Your task to perform on an android device: Empty the shopping cart on amazon. Add "asus rog" to the cart on amazon Image 0: 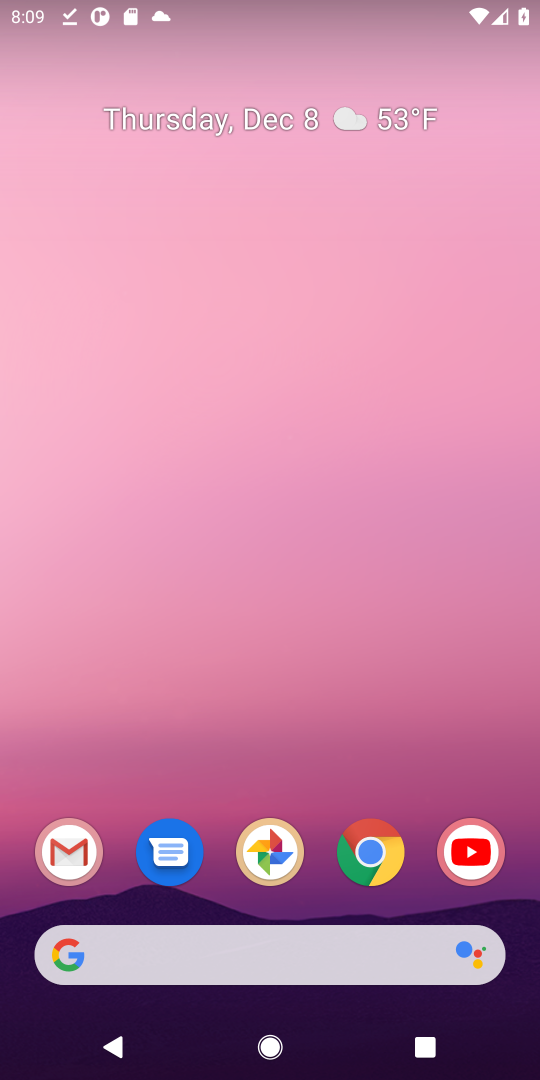
Step 0: click (197, 955)
Your task to perform on an android device: Empty the shopping cart on amazon. Add "asus rog" to the cart on amazon Image 1: 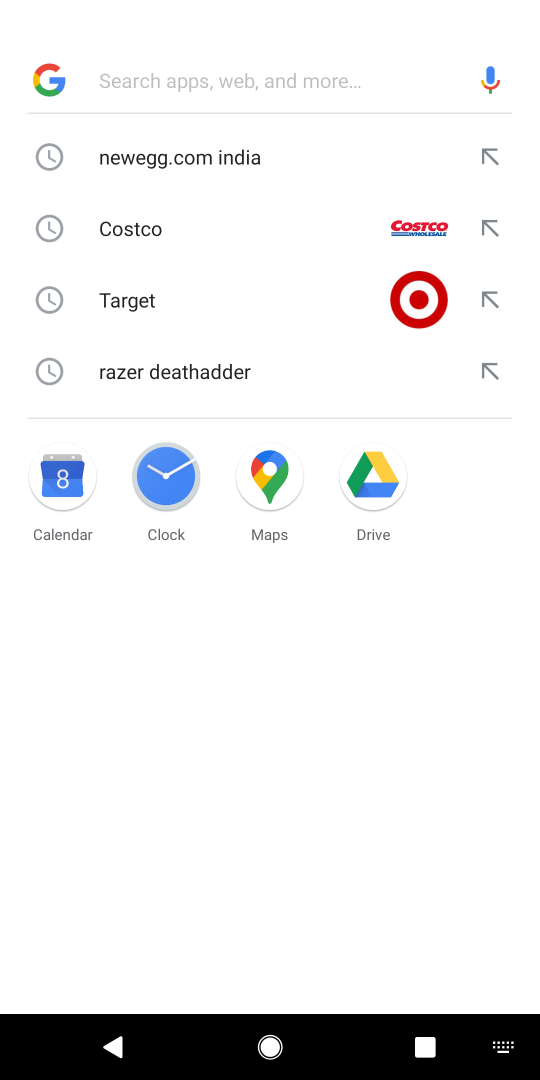
Step 1: type "aus rog"
Your task to perform on an android device: Empty the shopping cart on amazon. Add "asus rog" to the cart on amazon Image 2: 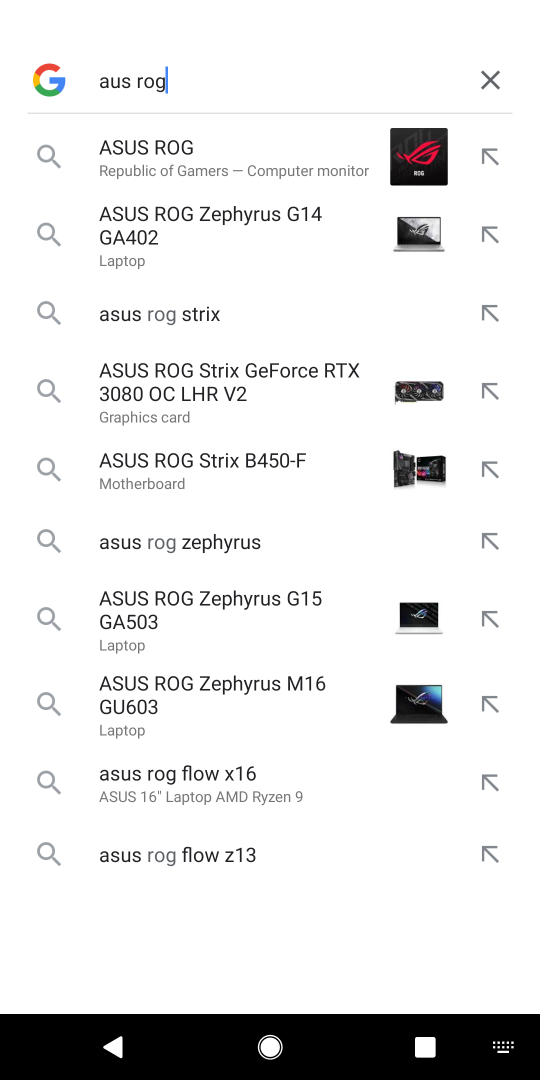
Step 2: click (206, 198)
Your task to perform on an android device: Empty the shopping cart on amazon. Add "asus rog" to the cart on amazon Image 3: 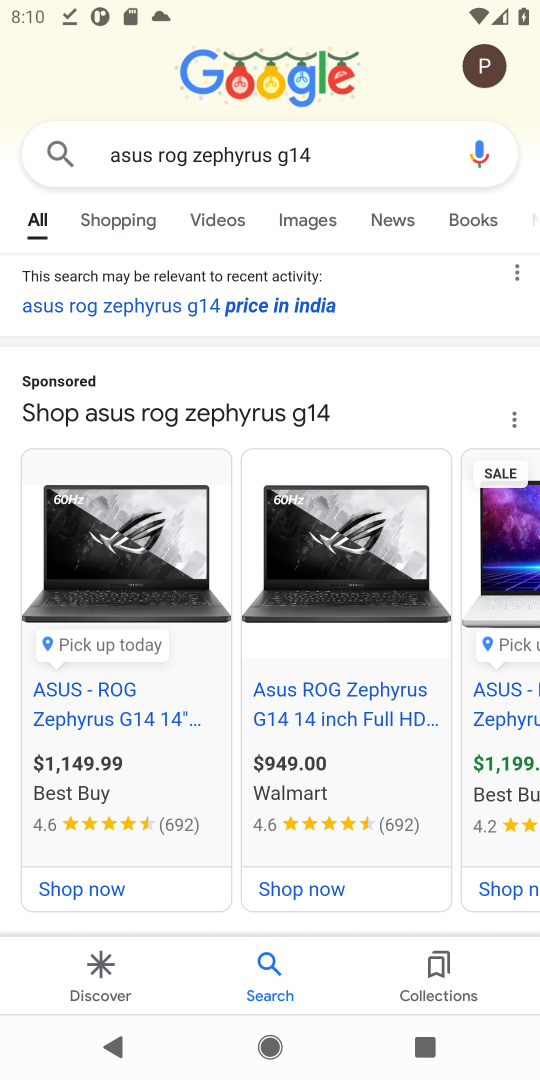
Step 3: click (131, 713)
Your task to perform on an android device: Empty the shopping cart on amazon. Add "asus rog" to the cart on amazon Image 4: 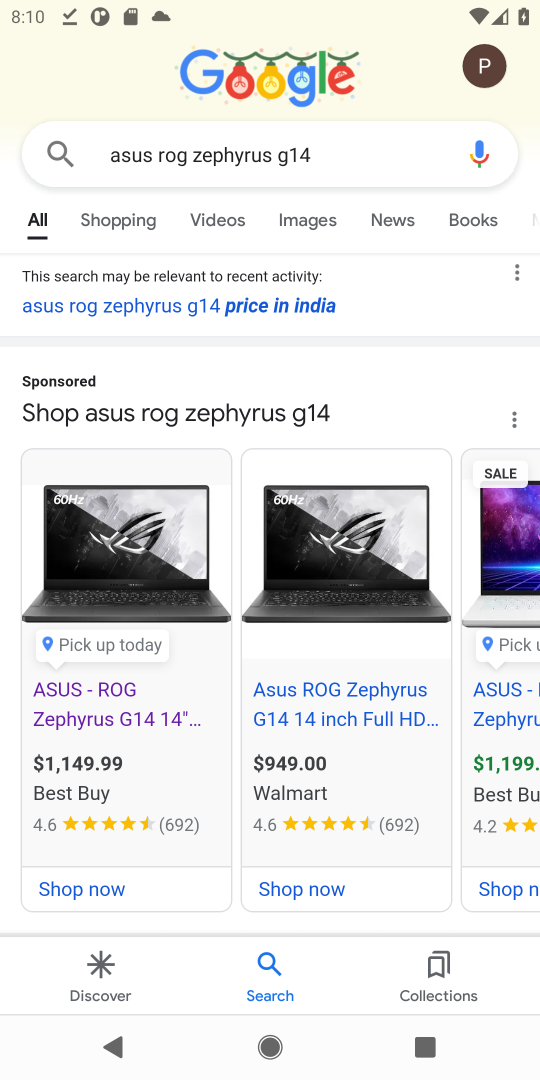
Step 4: task complete